Your task to perform on an android device: open app "Booking.com: Hotels and more" (install if not already installed) and enter user name: "misting@outlook.com" and password: "blandly" Image 0: 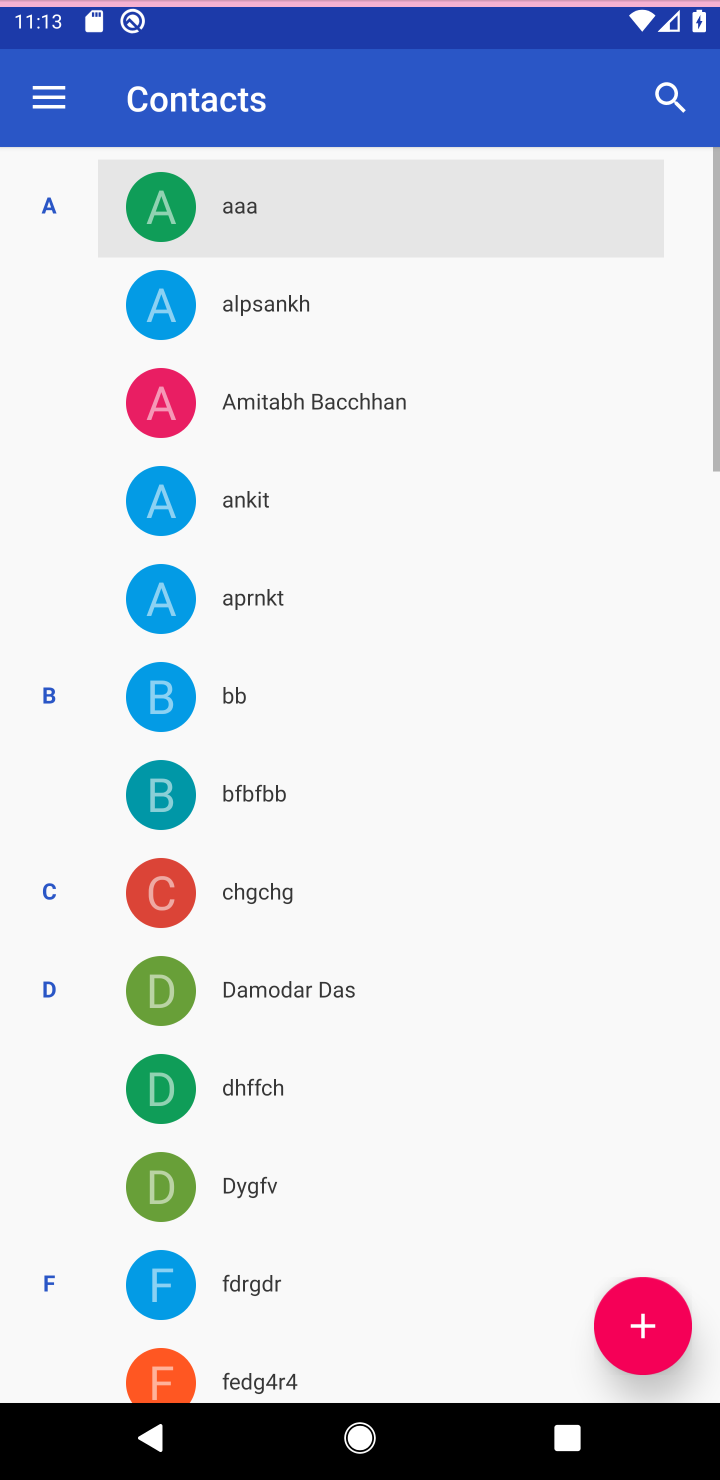
Step 0: press home button
Your task to perform on an android device: open app "Booking.com: Hotels and more" (install if not already installed) and enter user name: "misting@outlook.com" and password: "blandly" Image 1: 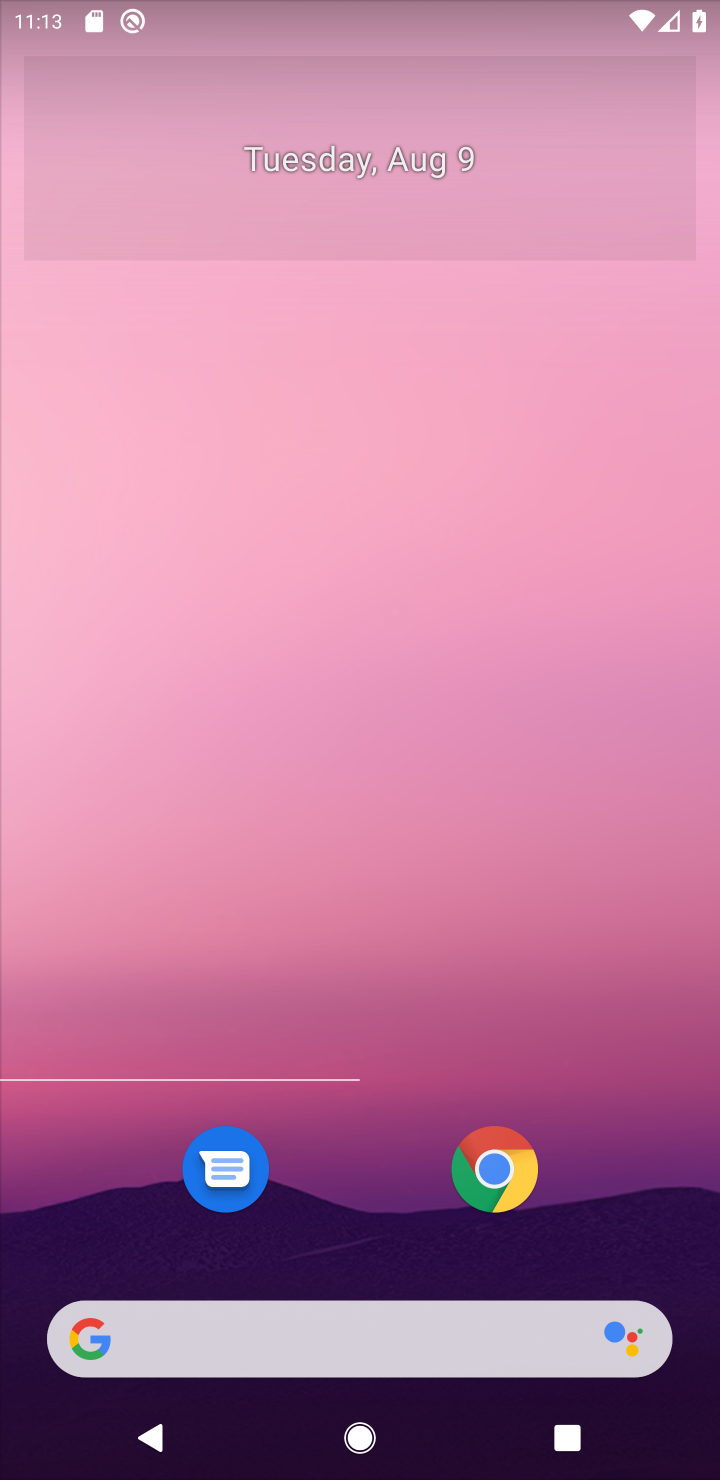
Step 1: press home button
Your task to perform on an android device: open app "Booking.com: Hotels and more" (install if not already installed) and enter user name: "misting@outlook.com" and password: "blandly" Image 2: 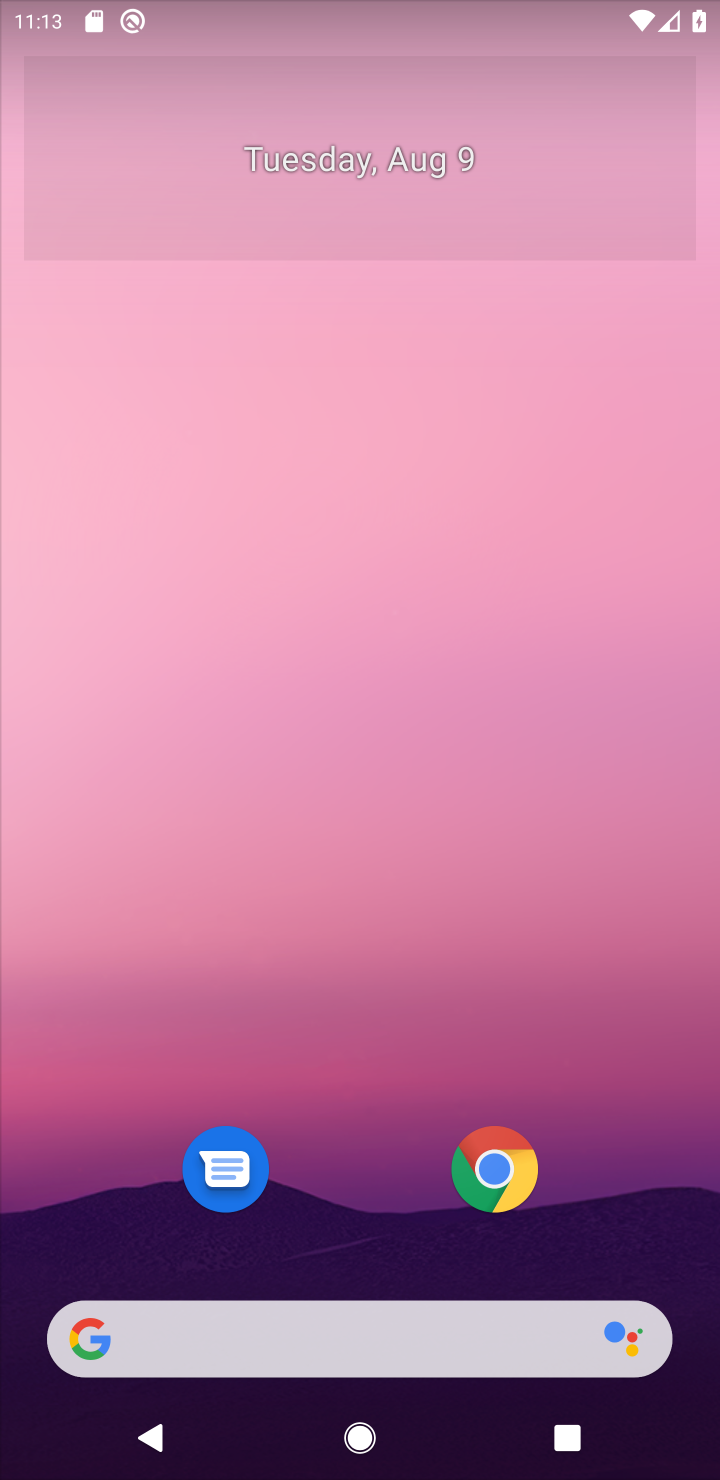
Step 2: drag from (623, 1238) to (615, 110)
Your task to perform on an android device: open app "Booking.com: Hotels and more" (install if not already installed) and enter user name: "misting@outlook.com" and password: "blandly" Image 3: 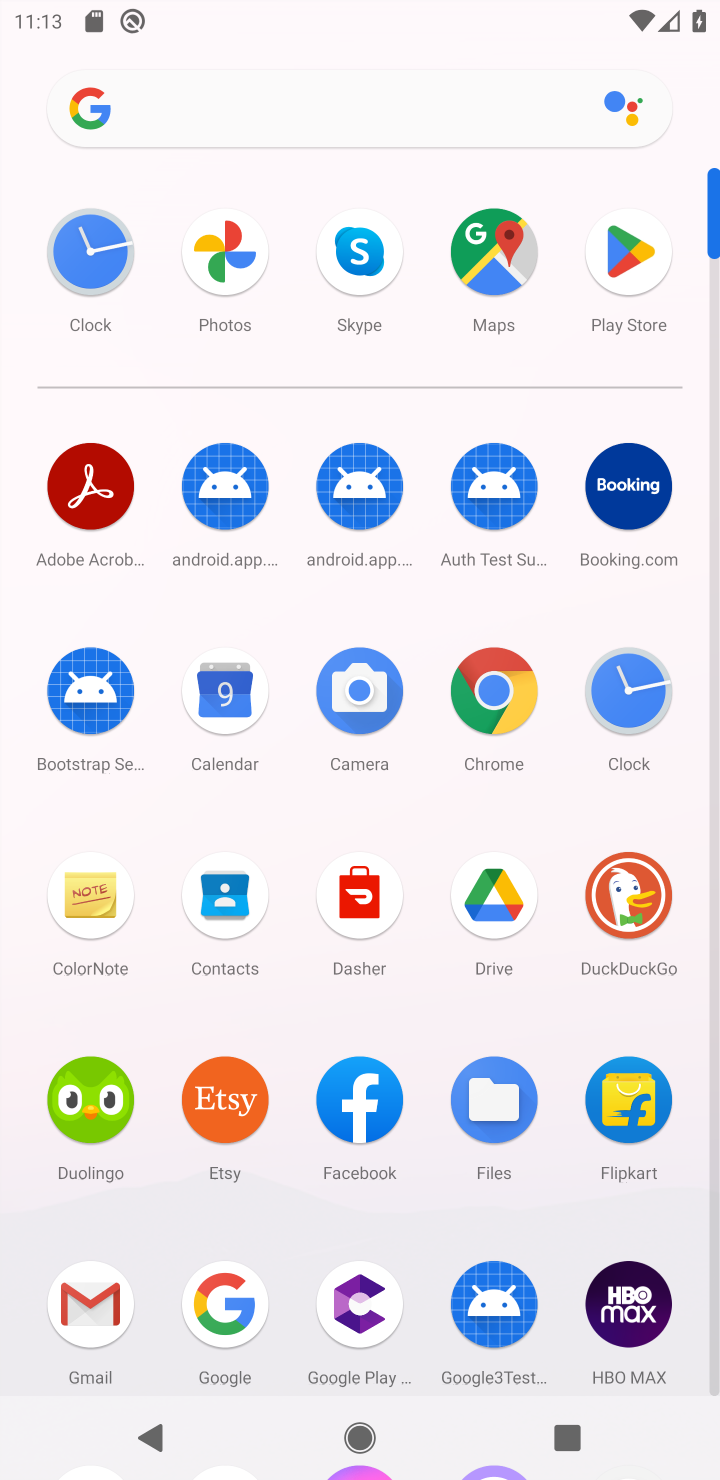
Step 3: click (626, 240)
Your task to perform on an android device: open app "Booking.com: Hotels and more" (install if not already installed) and enter user name: "misting@outlook.com" and password: "blandly" Image 4: 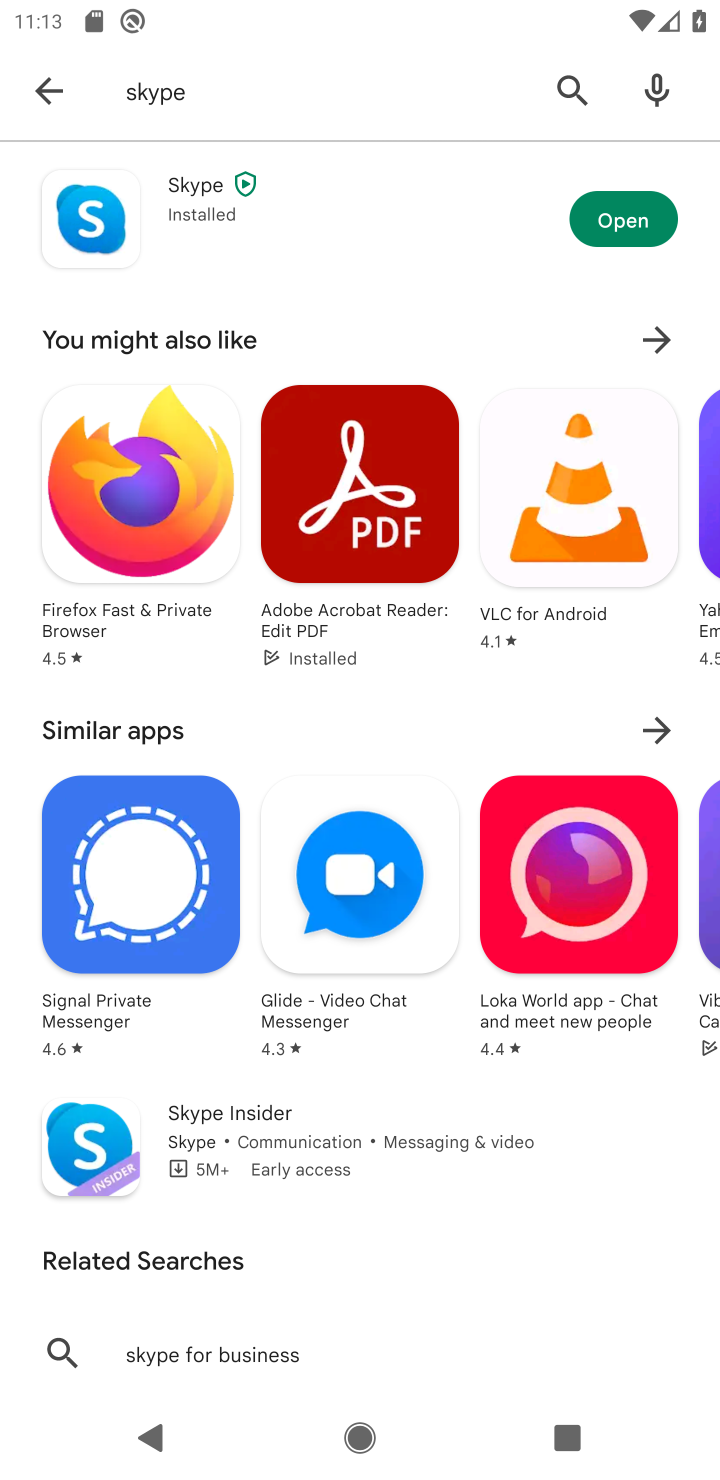
Step 4: click (572, 90)
Your task to perform on an android device: open app "Booking.com: Hotels and more" (install if not already installed) and enter user name: "misting@outlook.com" and password: "blandly" Image 5: 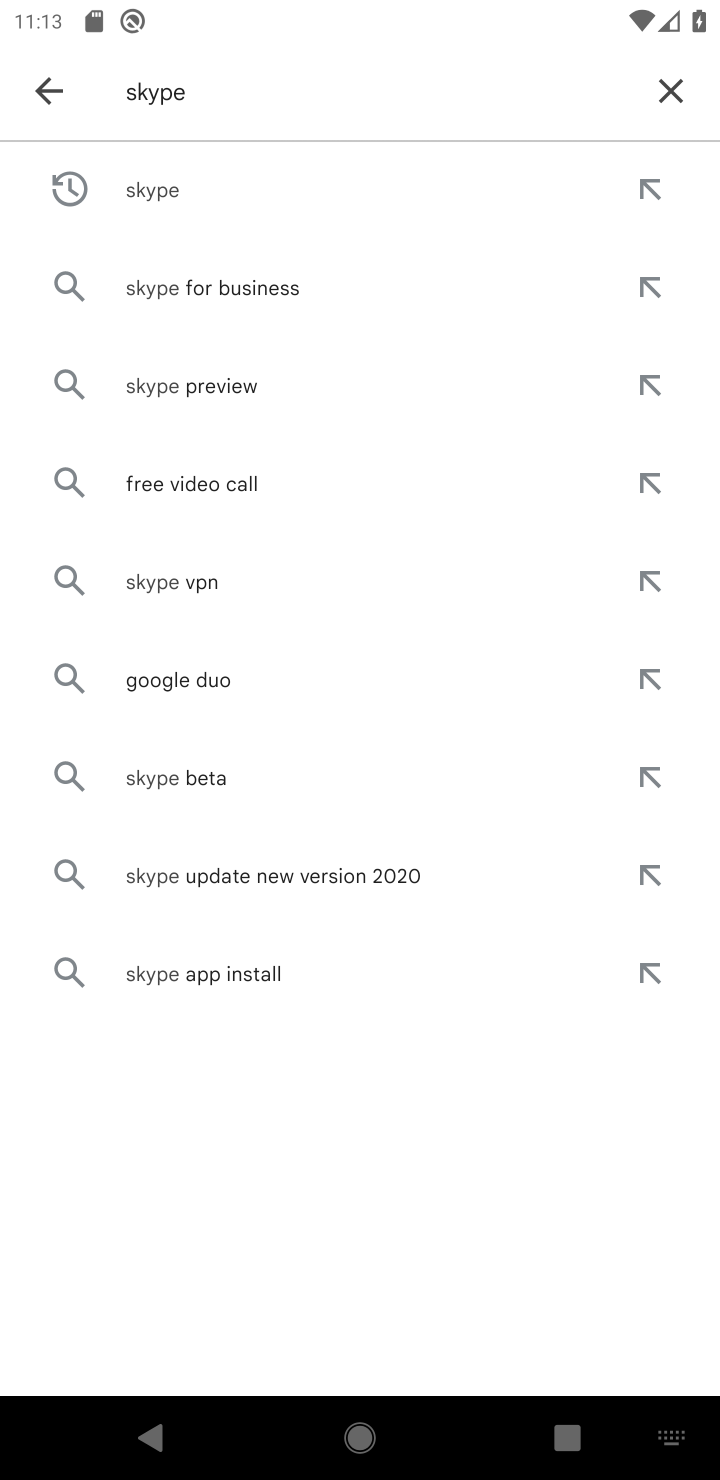
Step 5: click (659, 77)
Your task to perform on an android device: open app "Booking.com: Hotels and more" (install if not already installed) and enter user name: "misting@outlook.com" and password: "blandly" Image 6: 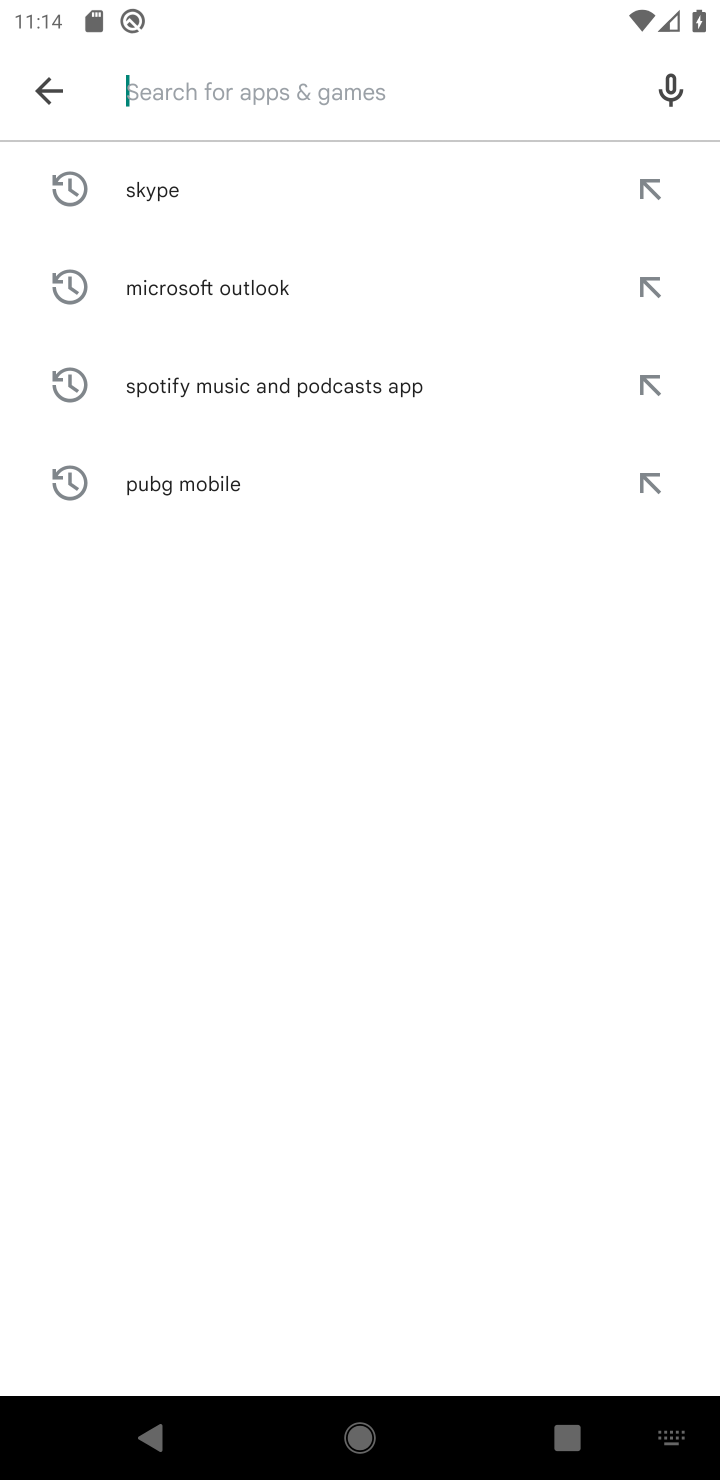
Step 6: type "booking.com hotels and more "
Your task to perform on an android device: open app "Booking.com: Hotels and more" (install if not already installed) and enter user name: "misting@outlook.com" and password: "blandly" Image 7: 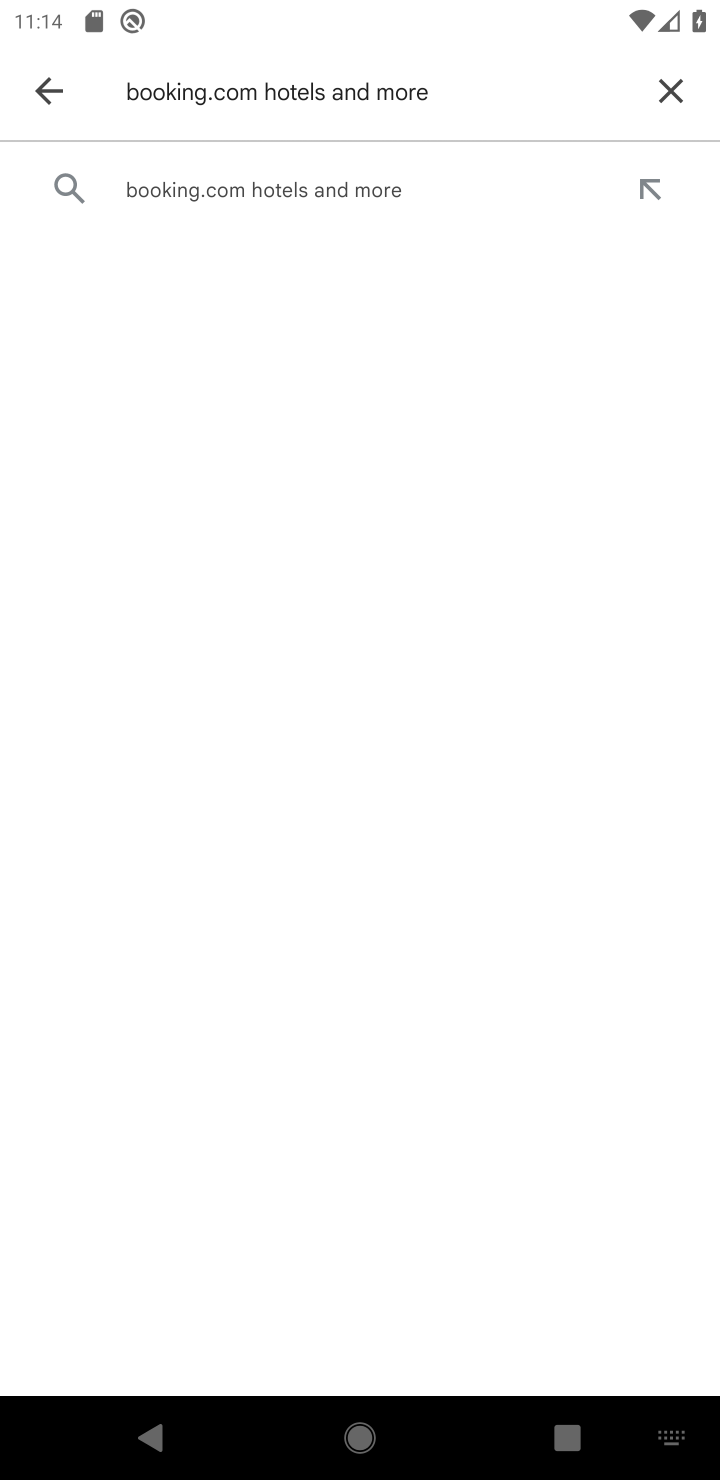
Step 7: click (307, 191)
Your task to perform on an android device: open app "Booking.com: Hotels and more" (install if not already installed) and enter user name: "misting@outlook.com" and password: "blandly" Image 8: 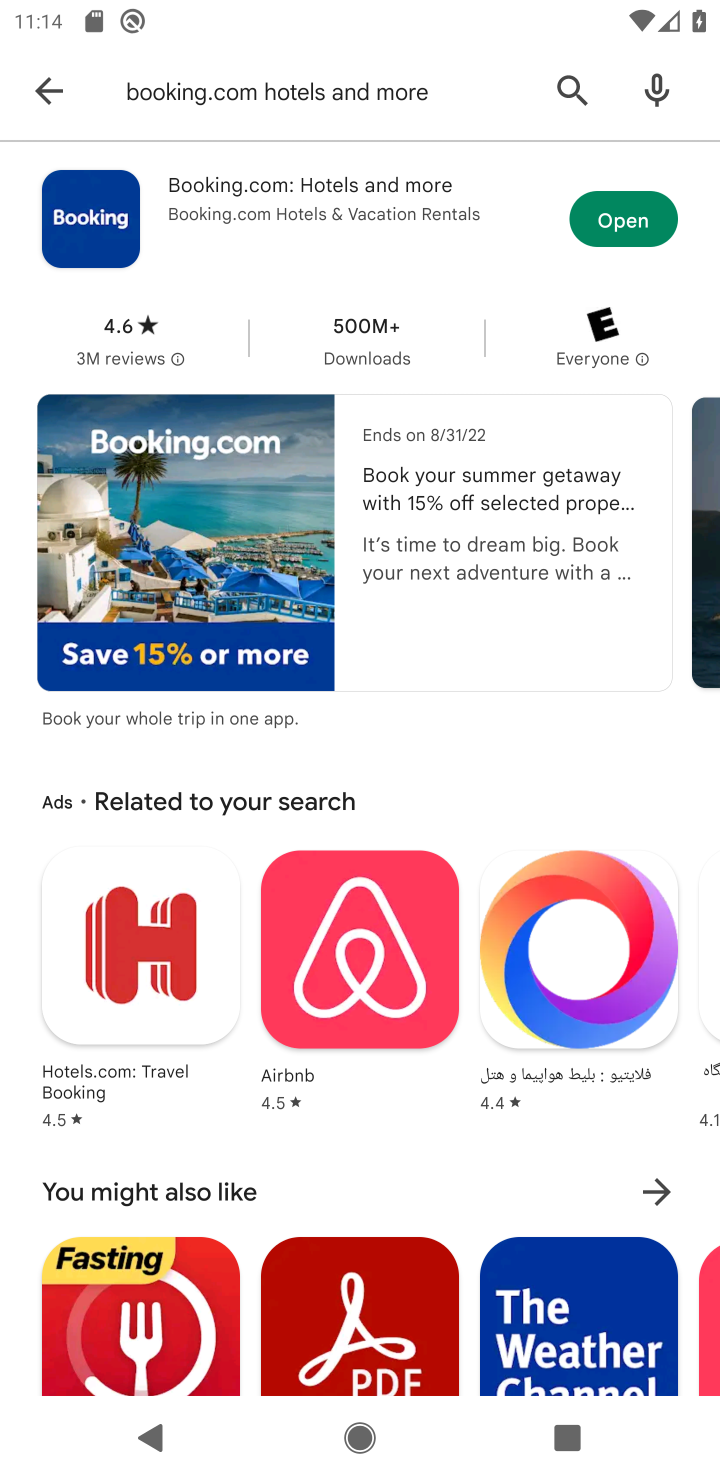
Step 8: click (643, 221)
Your task to perform on an android device: open app "Booking.com: Hotels and more" (install if not already installed) and enter user name: "misting@outlook.com" and password: "blandly" Image 9: 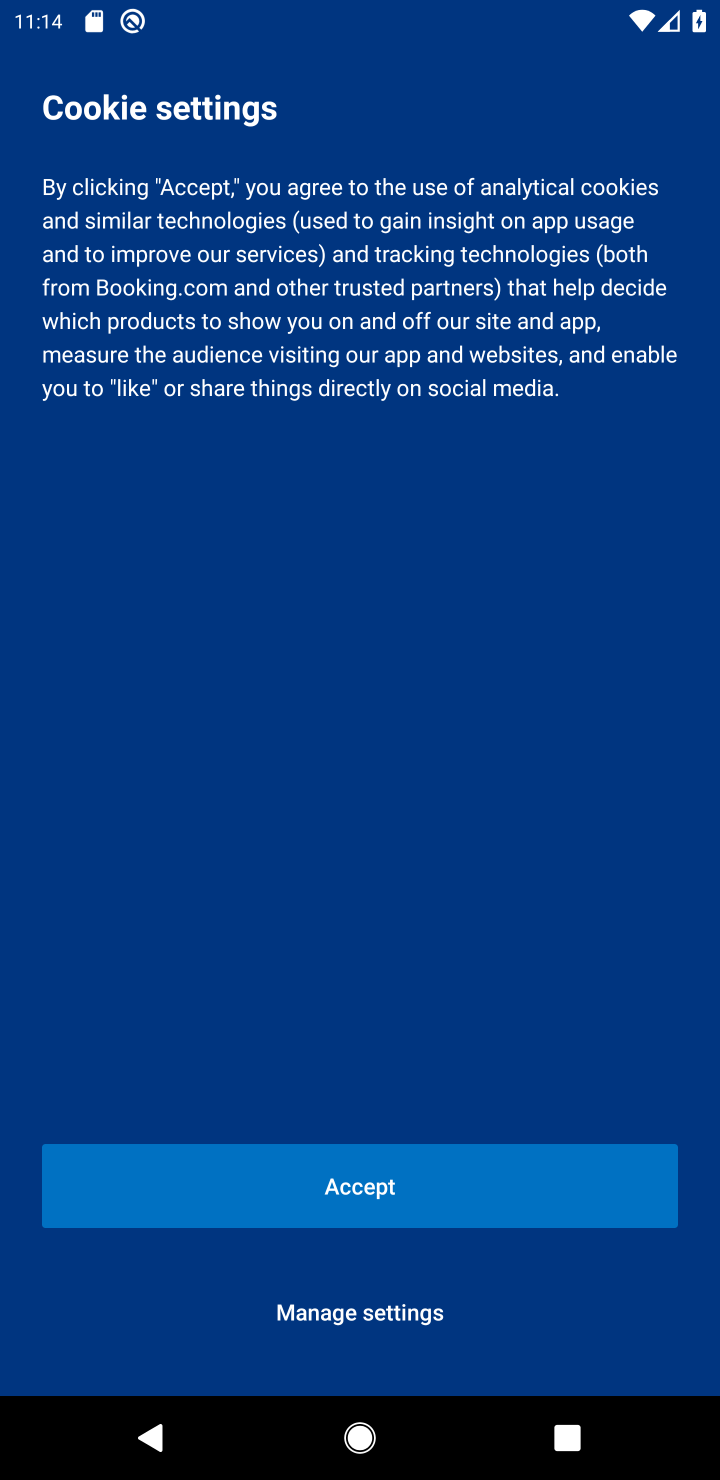
Step 9: click (408, 1191)
Your task to perform on an android device: open app "Booking.com: Hotels and more" (install if not already installed) and enter user name: "misting@outlook.com" and password: "blandly" Image 10: 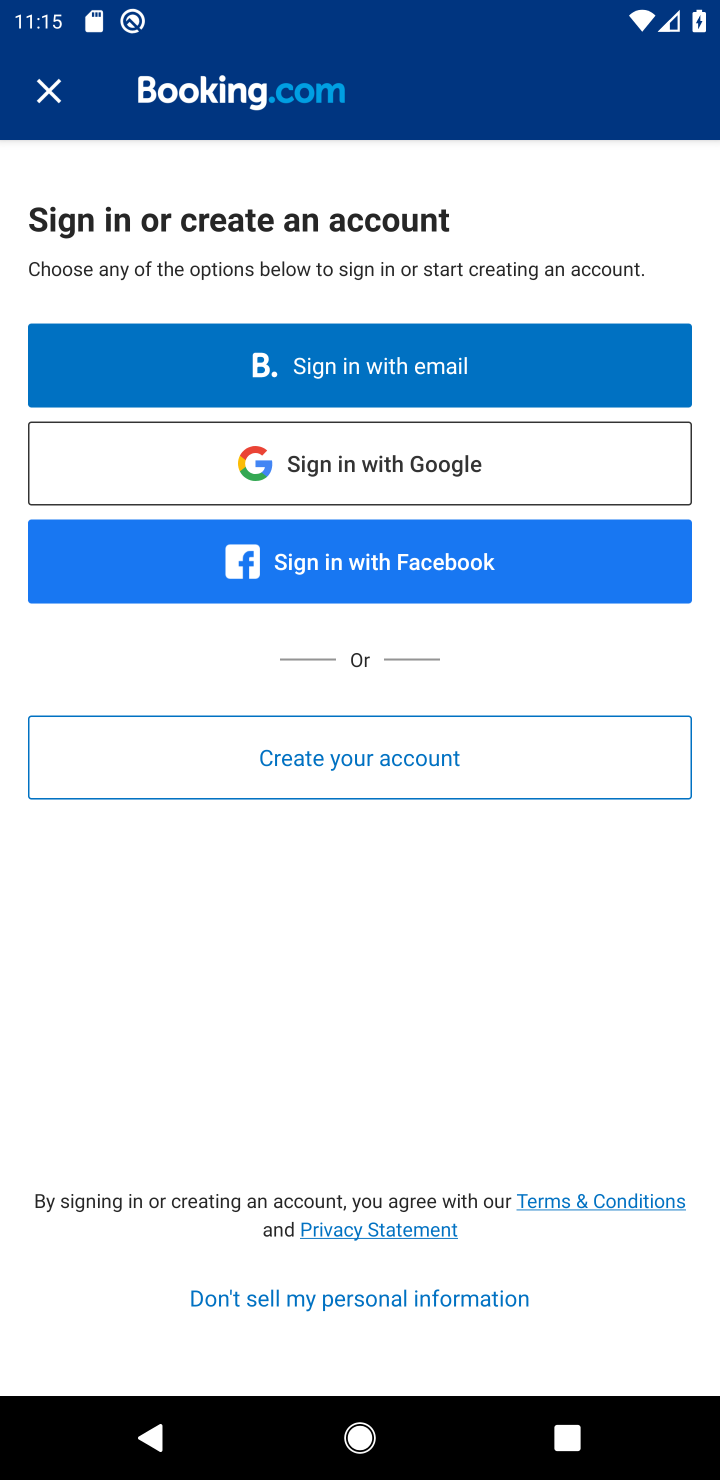
Step 10: click (405, 380)
Your task to perform on an android device: open app "Booking.com: Hotels and more" (install if not already installed) and enter user name: "misting@outlook.com" and password: "blandly" Image 11: 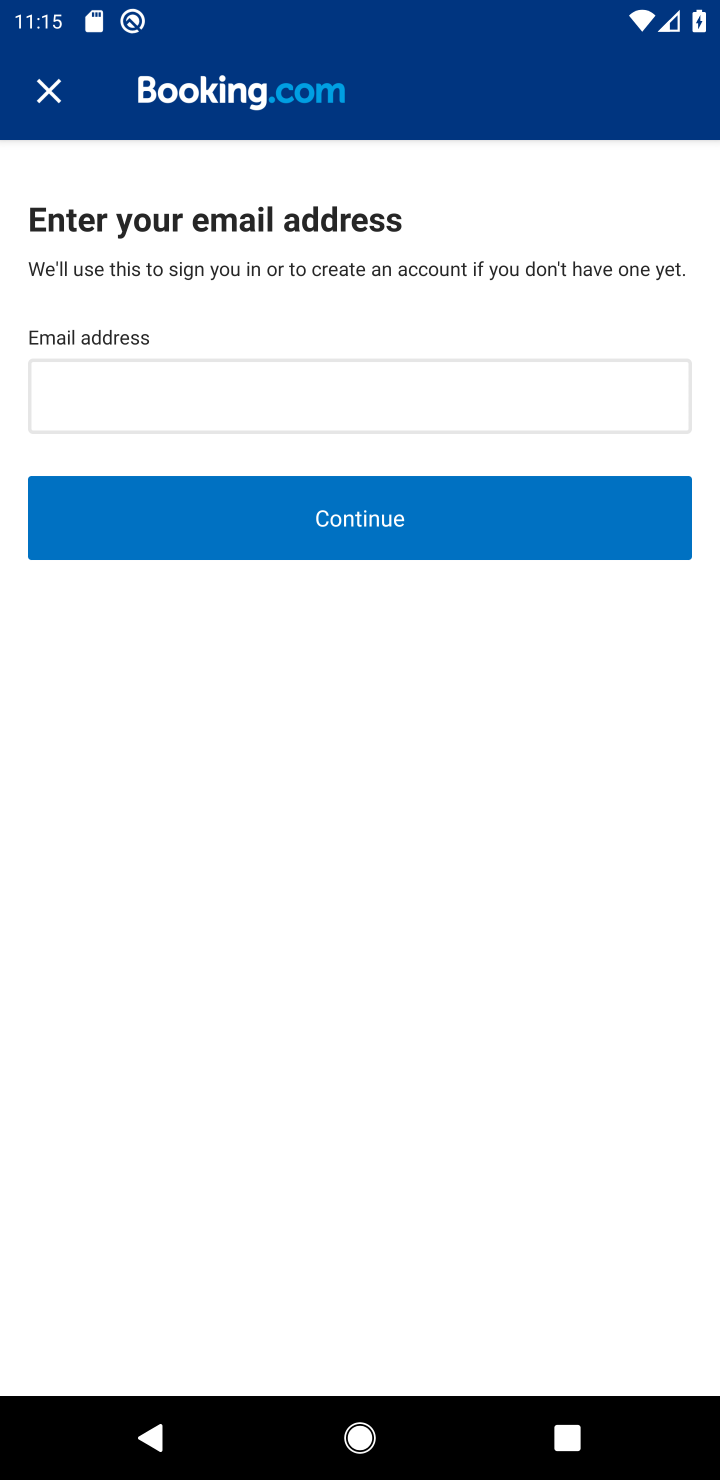
Step 11: click (217, 415)
Your task to perform on an android device: open app "Booking.com: Hotels and more" (install if not already installed) and enter user name: "misting@outlook.com" and password: "blandly" Image 12: 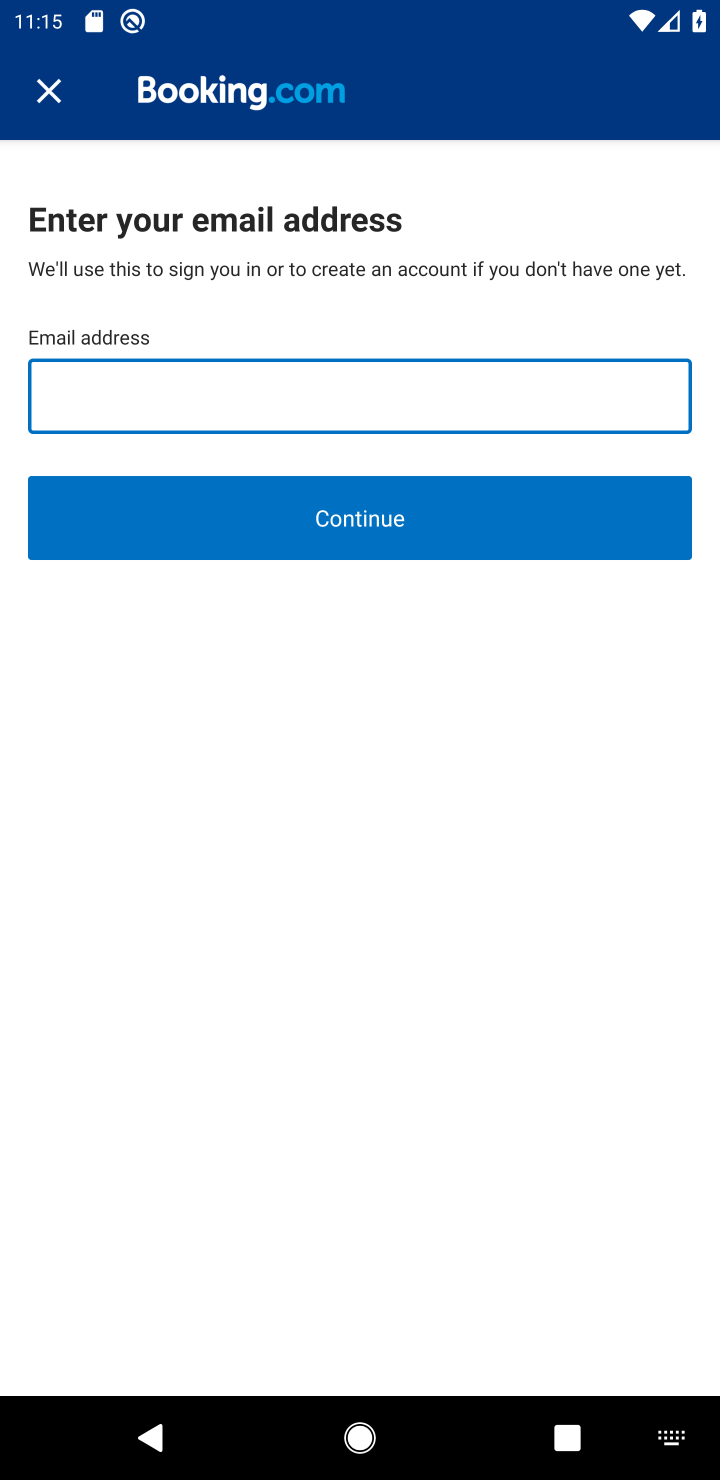
Step 12: type "misting@outlook.com"
Your task to perform on an android device: open app "Booking.com: Hotels and more" (install if not already installed) and enter user name: "misting@outlook.com" and password: "blandly" Image 13: 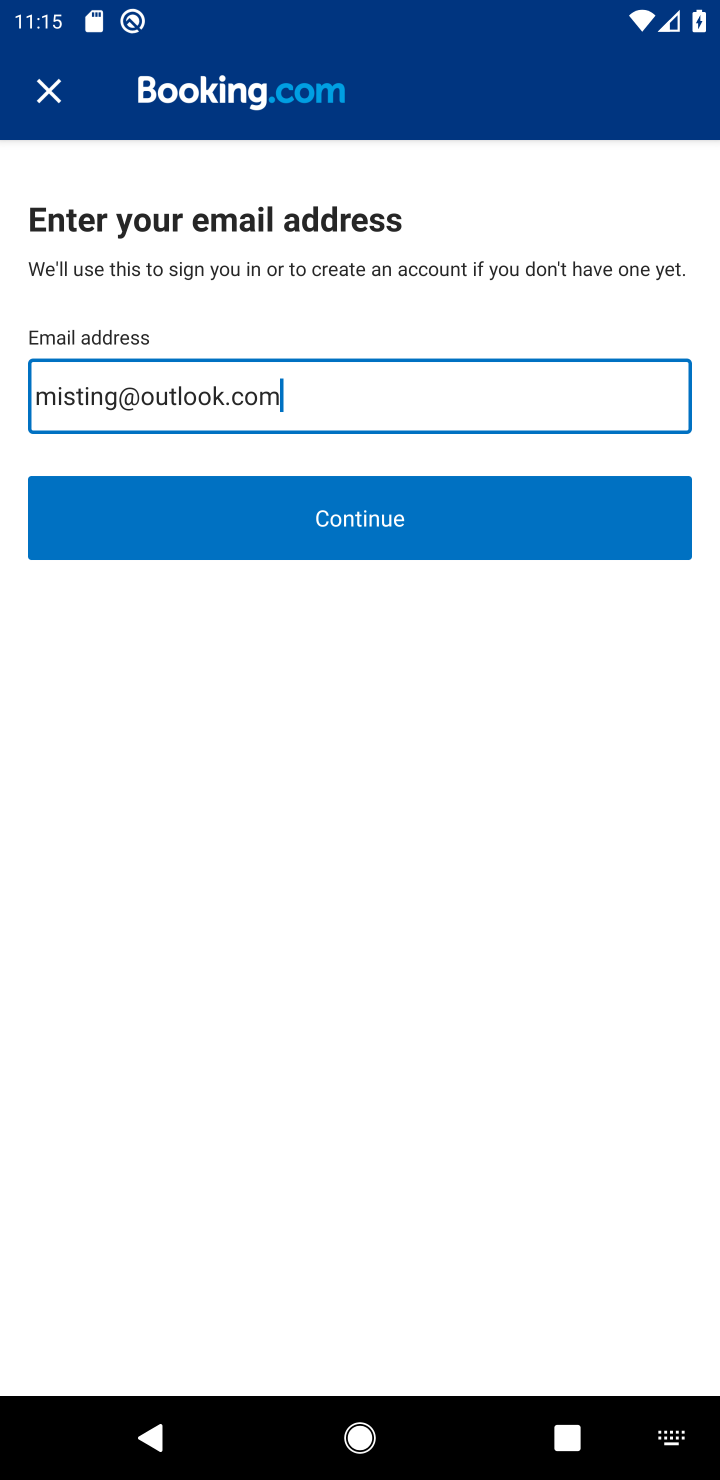
Step 13: press enter
Your task to perform on an android device: open app "Booking.com: Hotels and more" (install if not already installed) and enter user name: "misting@outlook.com" and password: "blandly" Image 14: 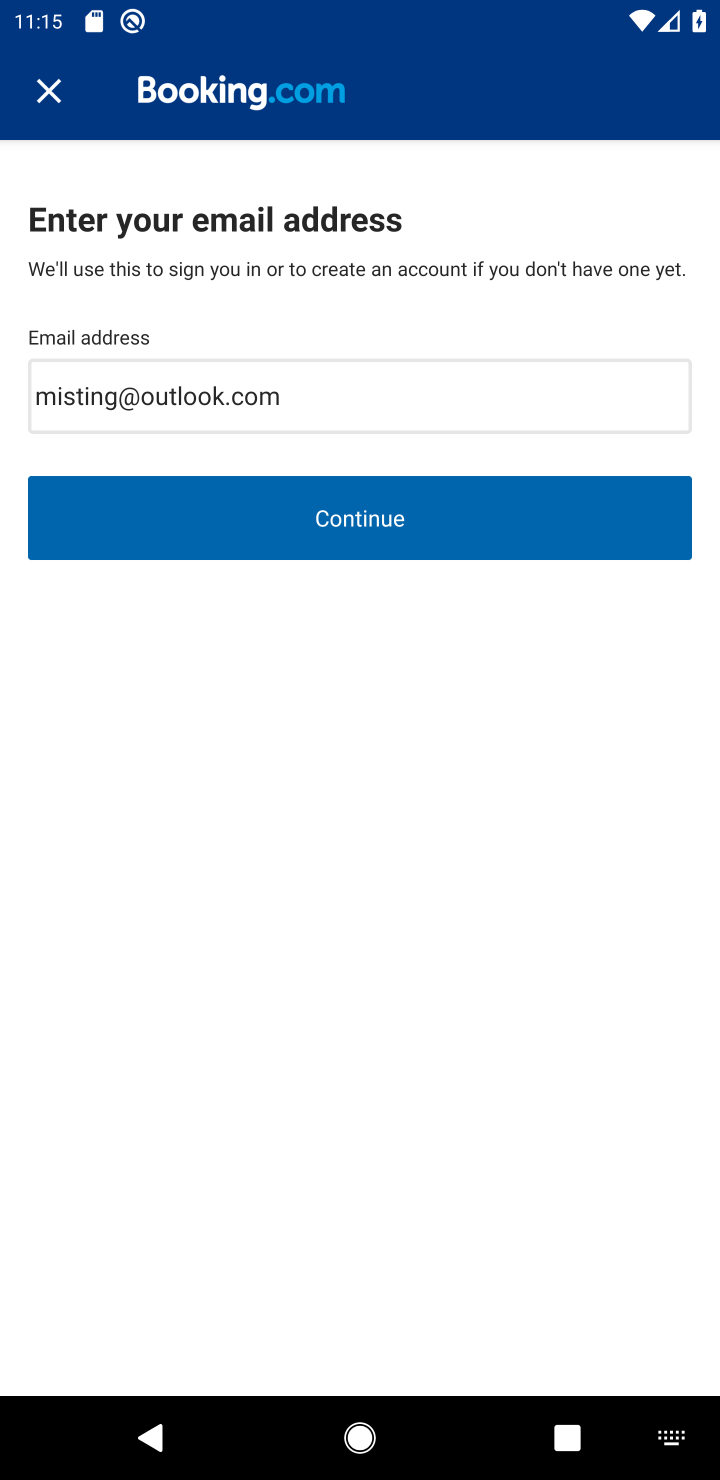
Step 14: click (383, 524)
Your task to perform on an android device: open app "Booking.com: Hotels and more" (install if not already installed) and enter user name: "misting@outlook.com" and password: "blandly" Image 15: 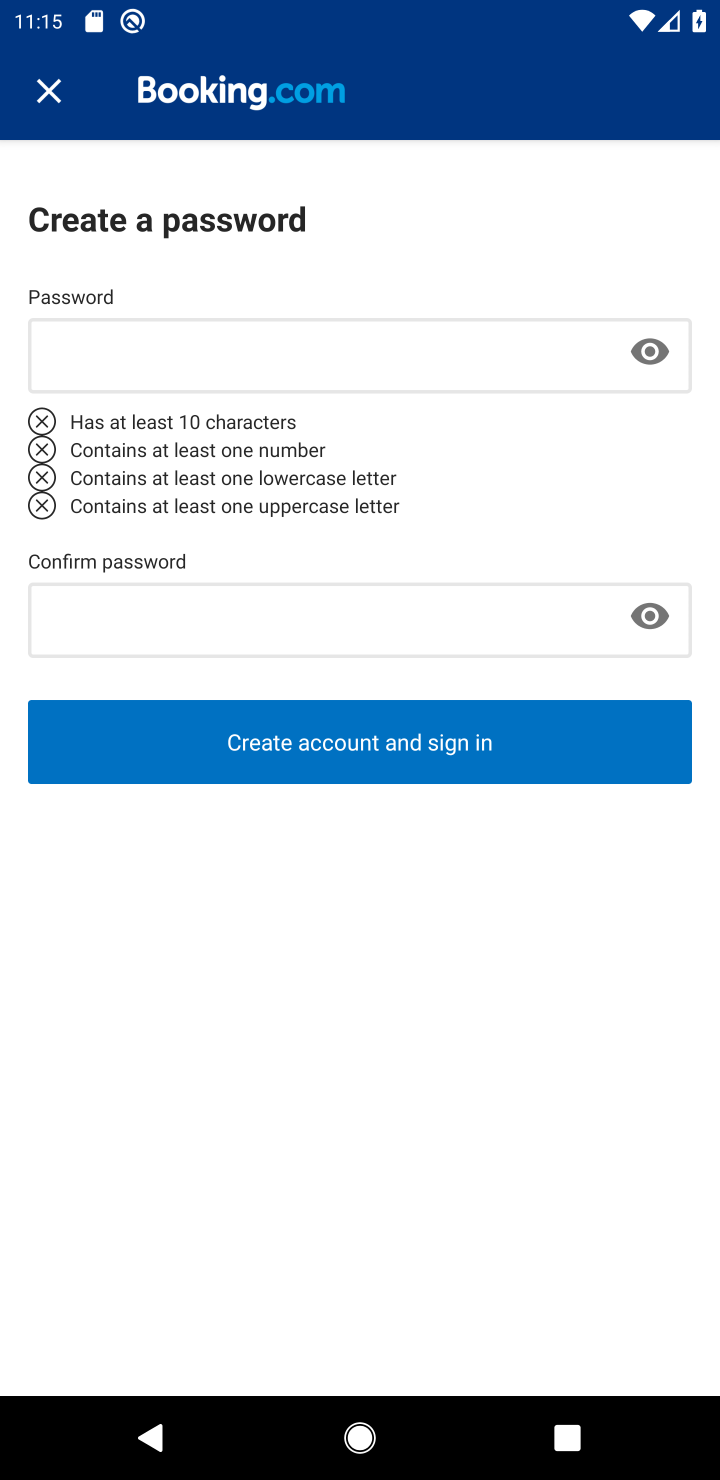
Step 15: click (208, 342)
Your task to perform on an android device: open app "Booking.com: Hotels and more" (install if not already installed) and enter user name: "misting@outlook.com" and password: "blandly" Image 16: 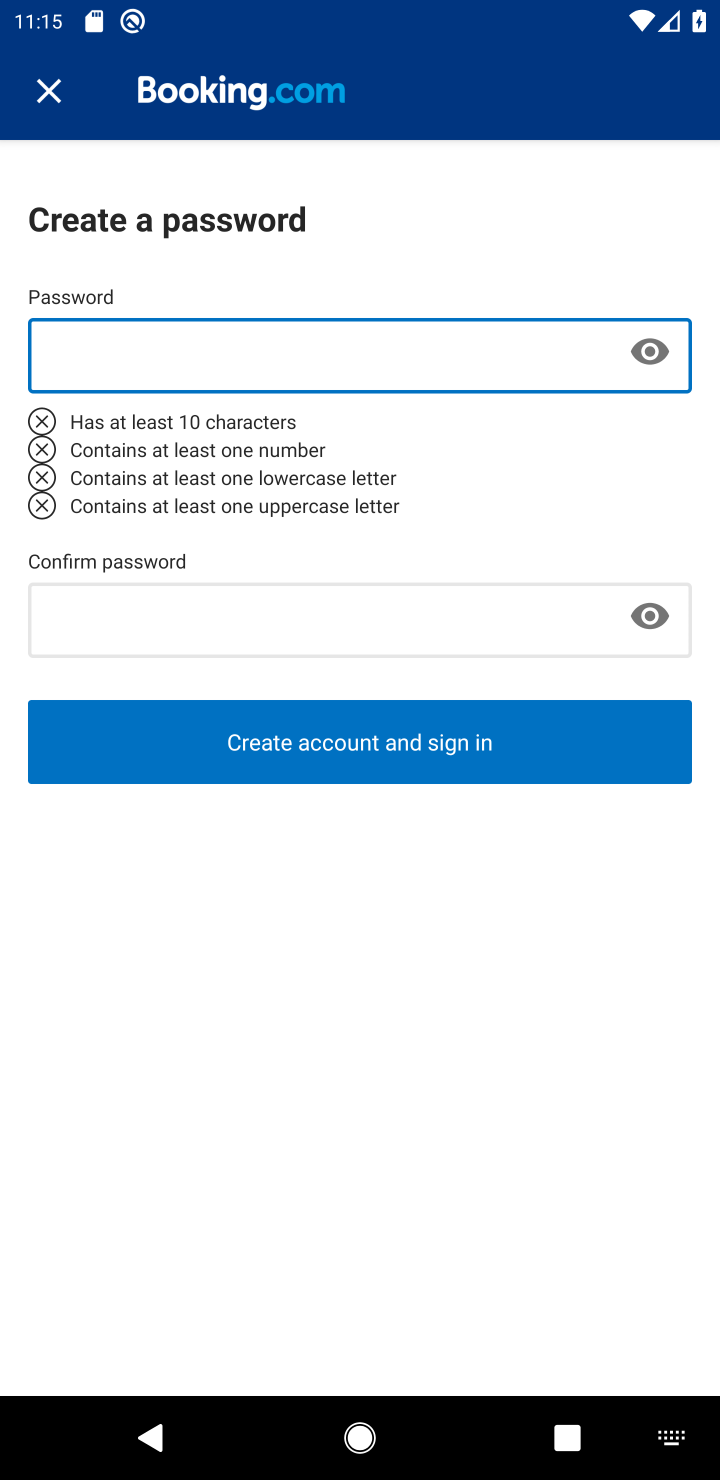
Step 16: type "blandly"
Your task to perform on an android device: open app "Booking.com: Hotels and more" (install if not already installed) and enter user name: "misting@outlook.com" and password: "blandly" Image 17: 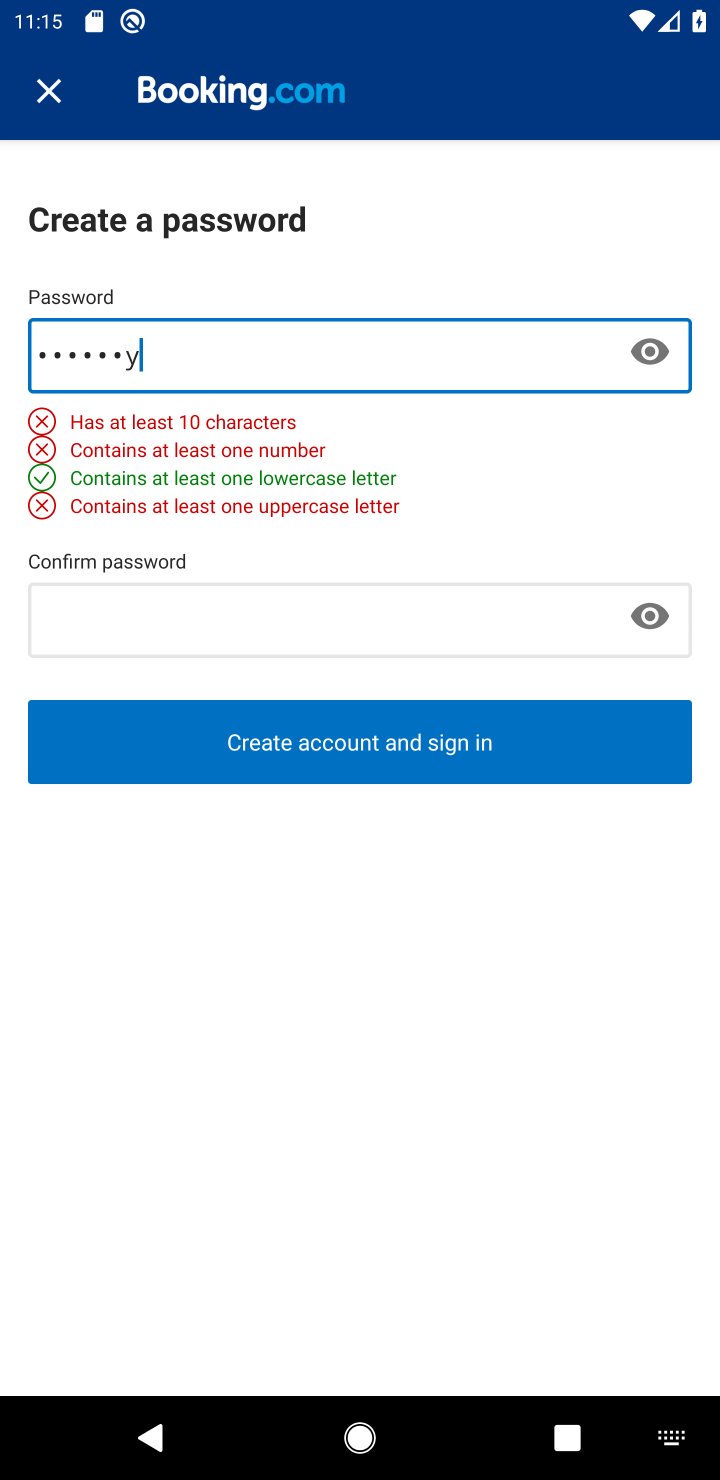
Step 17: press enter
Your task to perform on an android device: open app "Booking.com: Hotels and more" (install if not already installed) and enter user name: "misting@outlook.com" and password: "blandly" Image 18: 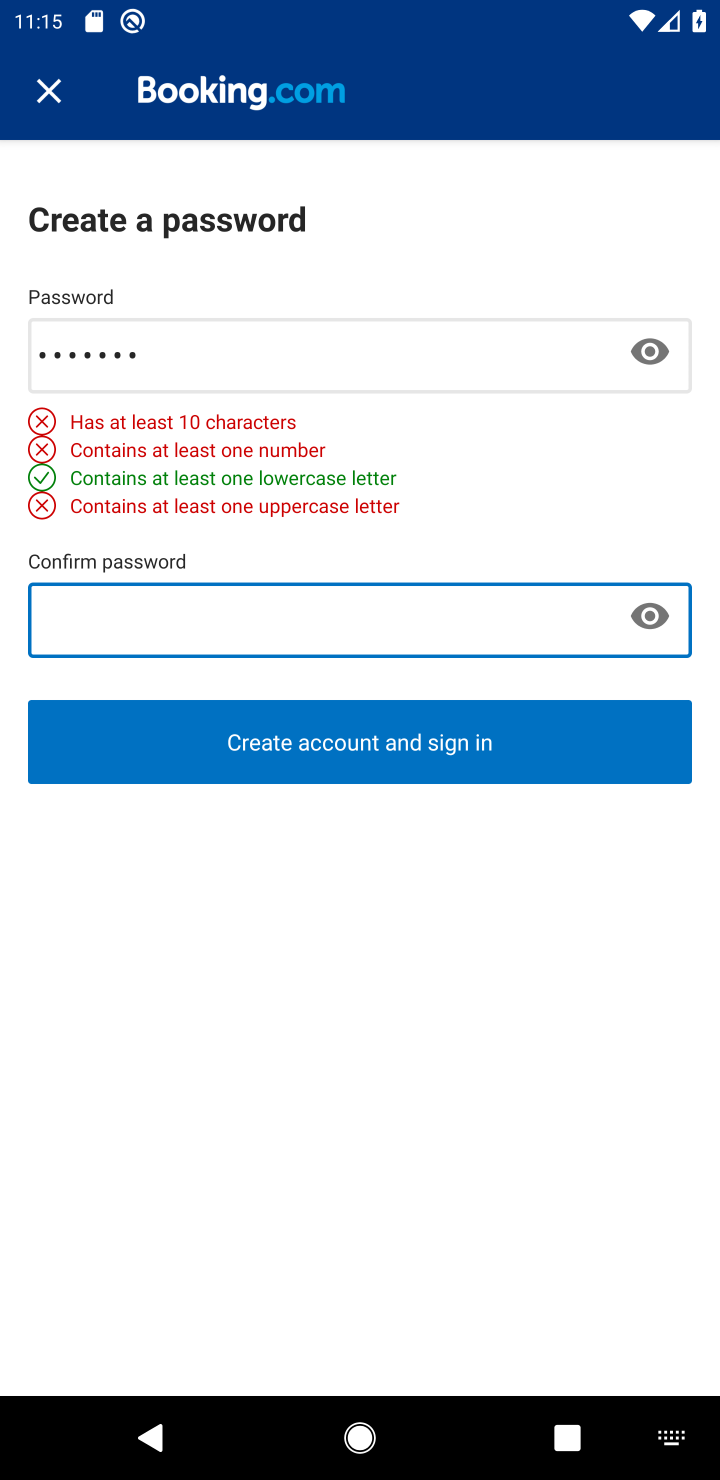
Step 18: task complete